Your task to perform on an android device: Go to Yahoo.com Image 0: 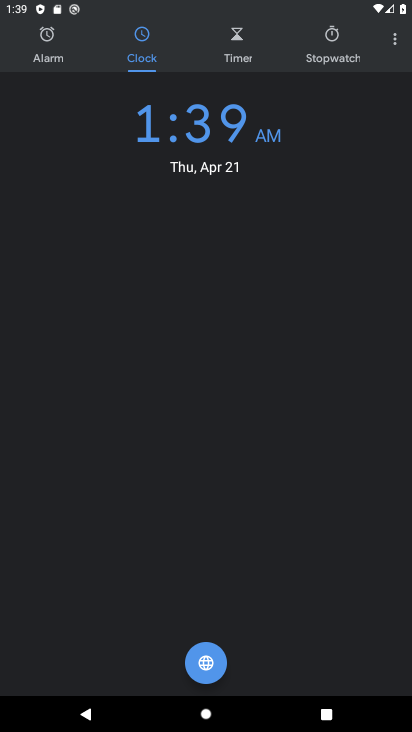
Step 0: drag from (313, 548) to (278, 366)
Your task to perform on an android device: Go to Yahoo.com Image 1: 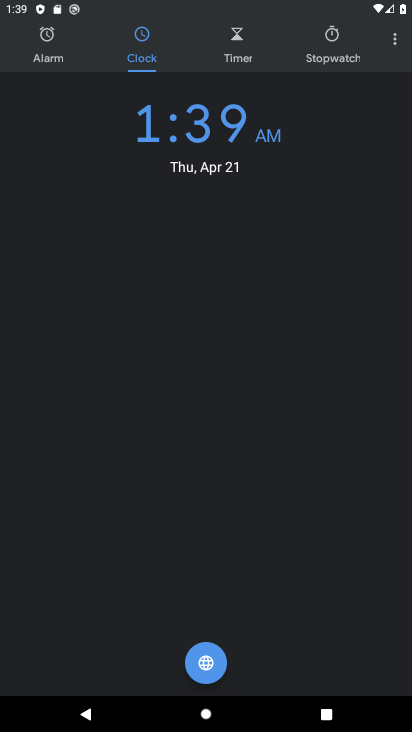
Step 1: press home button
Your task to perform on an android device: Go to Yahoo.com Image 2: 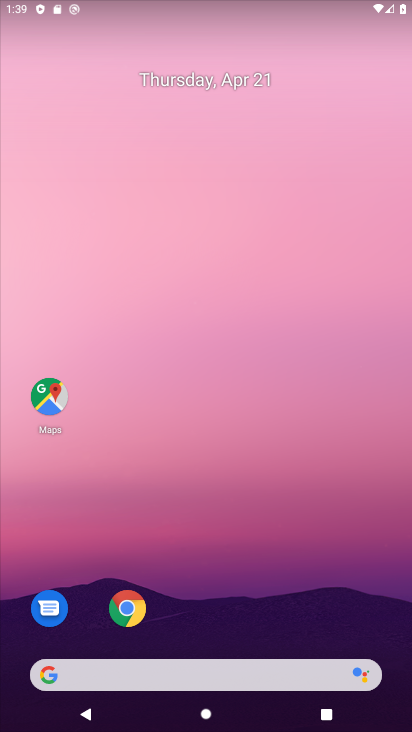
Step 2: click (125, 610)
Your task to perform on an android device: Go to Yahoo.com Image 3: 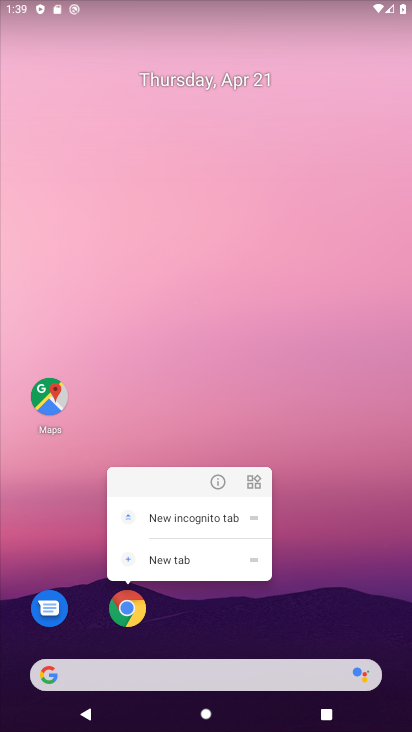
Step 3: click (132, 602)
Your task to perform on an android device: Go to Yahoo.com Image 4: 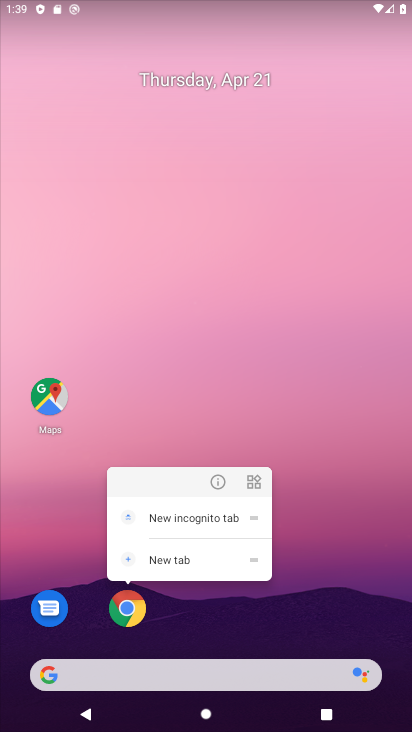
Step 4: click (132, 599)
Your task to perform on an android device: Go to Yahoo.com Image 5: 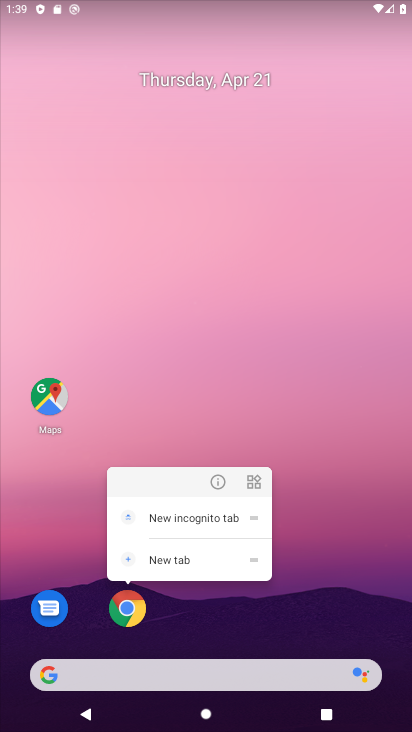
Step 5: click (132, 599)
Your task to perform on an android device: Go to Yahoo.com Image 6: 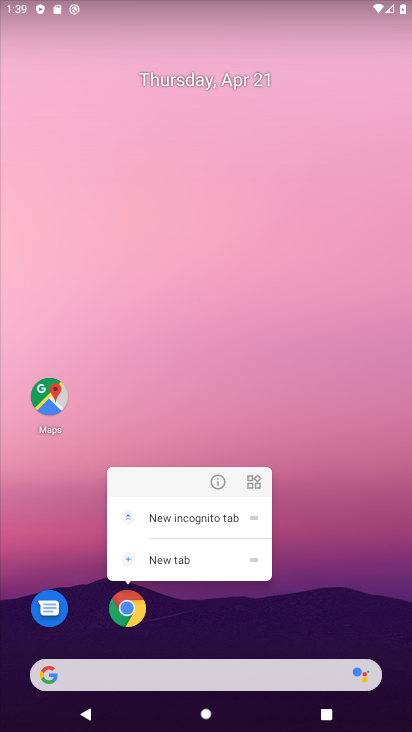
Step 6: click (132, 599)
Your task to perform on an android device: Go to Yahoo.com Image 7: 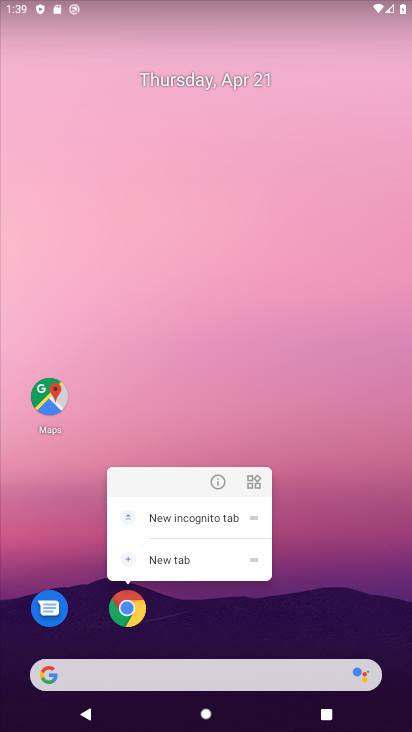
Step 7: click (132, 598)
Your task to perform on an android device: Go to Yahoo.com Image 8: 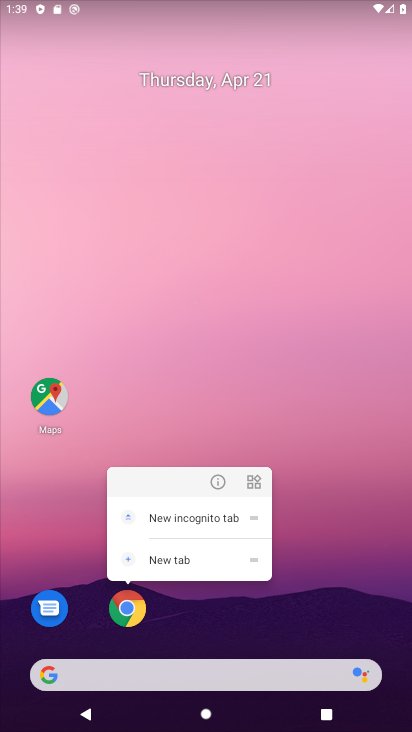
Step 8: click (132, 598)
Your task to perform on an android device: Go to Yahoo.com Image 9: 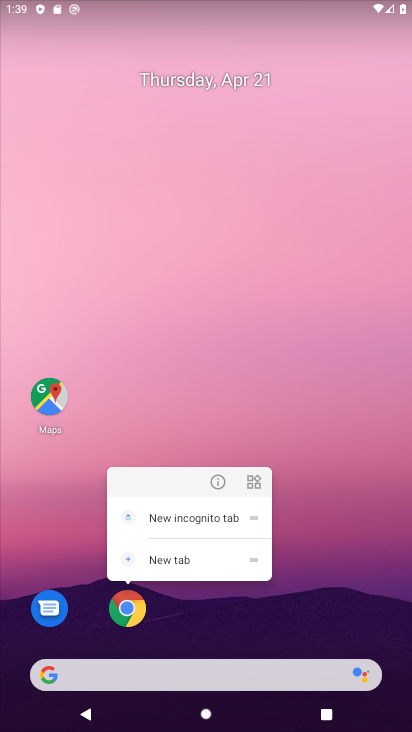
Step 9: click (132, 598)
Your task to perform on an android device: Go to Yahoo.com Image 10: 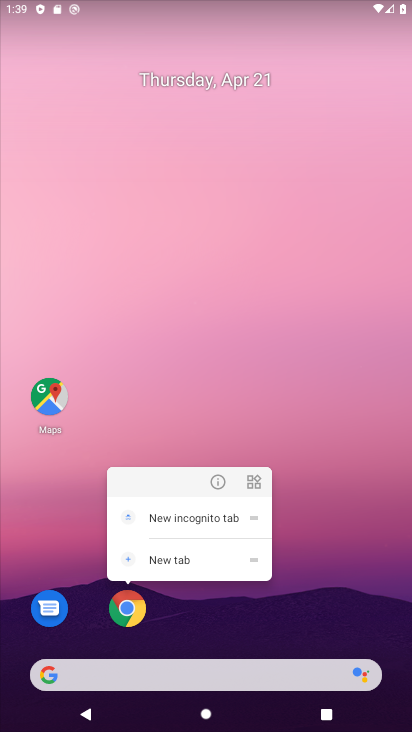
Step 10: click (132, 598)
Your task to perform on an android device: Go to Yahoo.com Image 11: 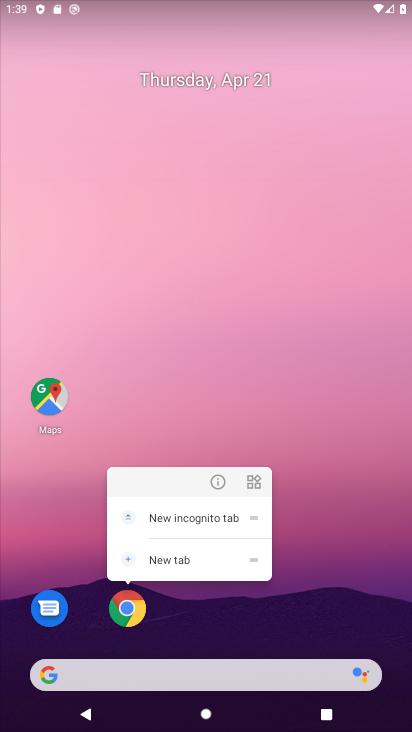
Step 11: click (132, 598)
Your task to perform on an android device: Go to Yahoo.com Image 12: 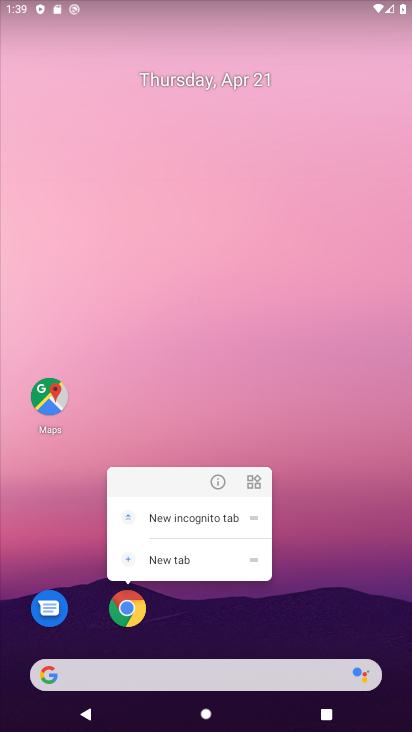
Step 12: click (132, 597)
Your task to perform on an android device: Go to Yahoo.com Image 13: 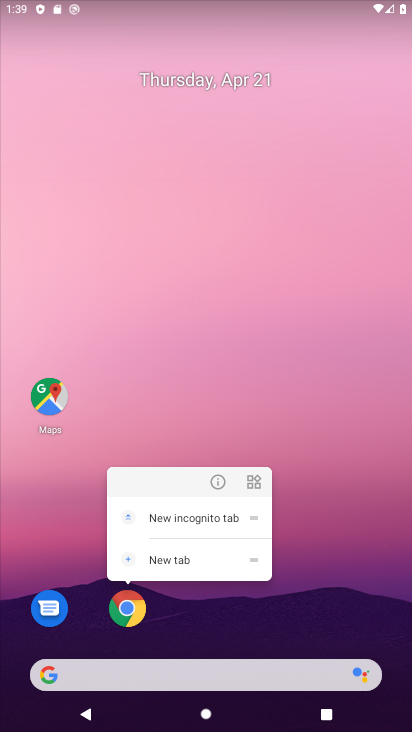
Step 13: click (132, 595)
Your task to perform on an android device: Go to Yahoo.com Image 14: 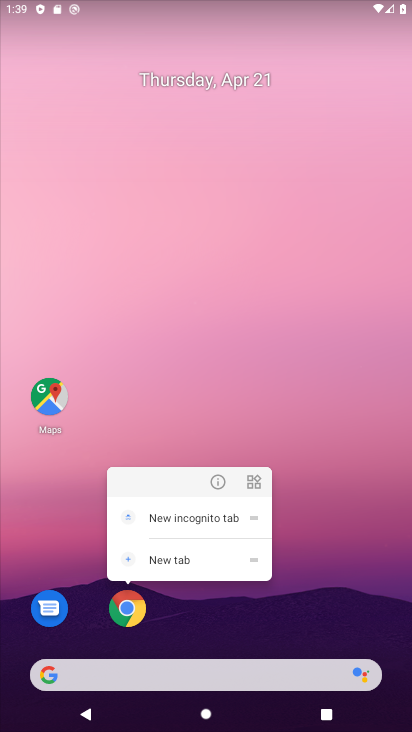
Step 14: click (132, 593)
Your task to perform on an android device: Go to Yahoo.com Image 15: 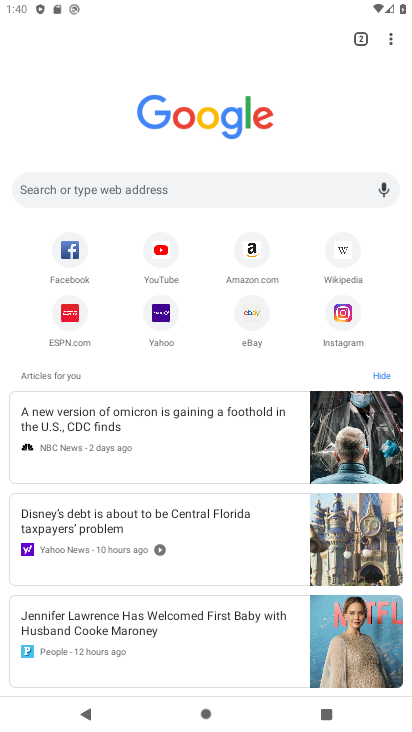
Step 15: click (171, 328)
Your task to perform on an android device: Go to Yahoo.com Image 16: 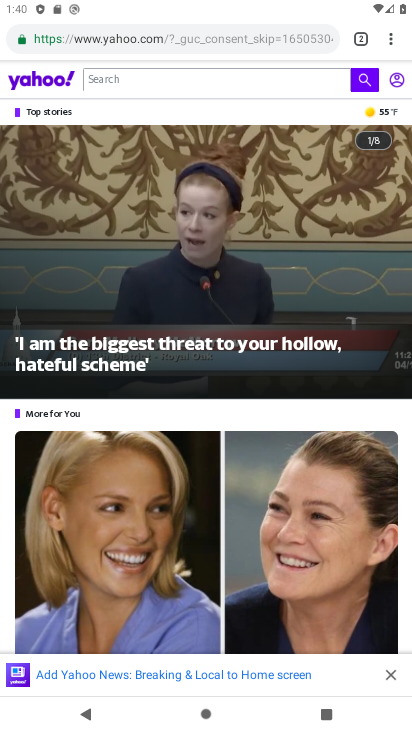
Step 16: task complete